Your task to perform on an android device: choose inbox layout in the gmail app Image 0: 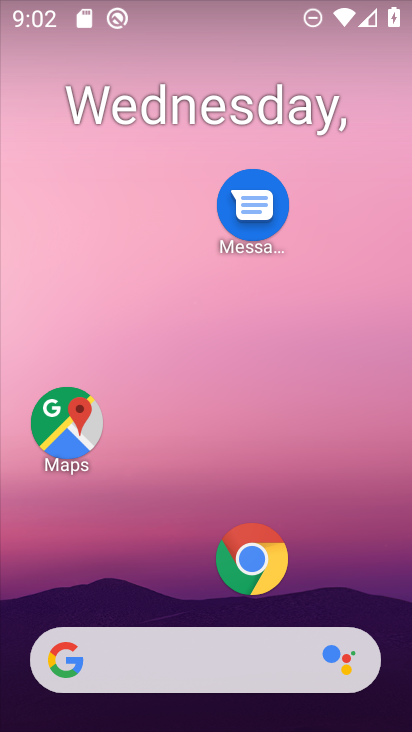
Step 0: drag from (167, 606) to (172, 154)
Your task to perform on an android device: choose inbox layout in the gmail app Image 1: 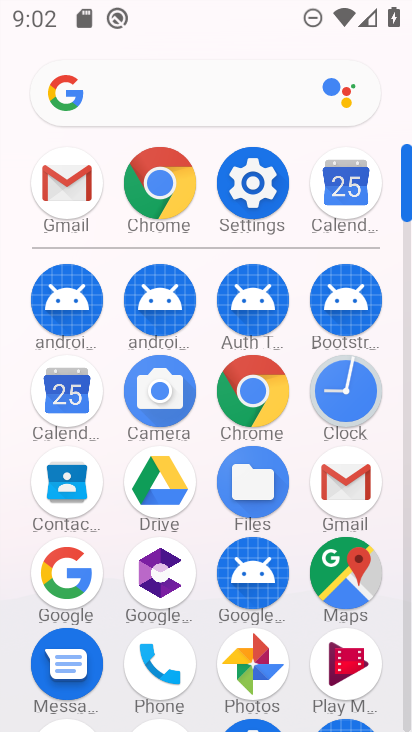
Step 1: click (346, 496)
Your task to perform on an android device: choose inbox layout in the gmail app Image 2: 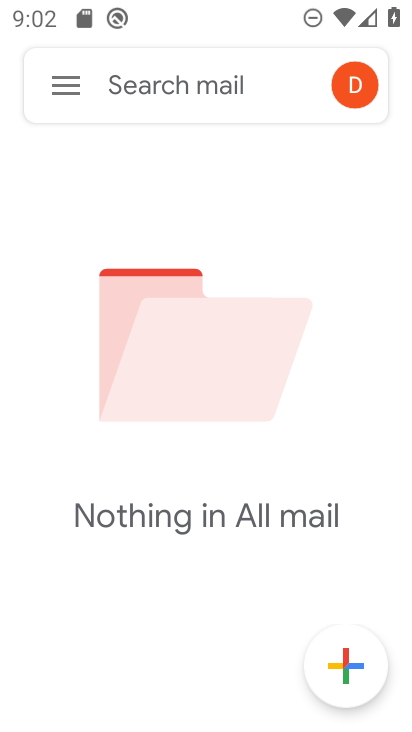
Step 2: click (65, 99)
Your task to perform on an android device: choose inbox layout in the gmail app Image 3: 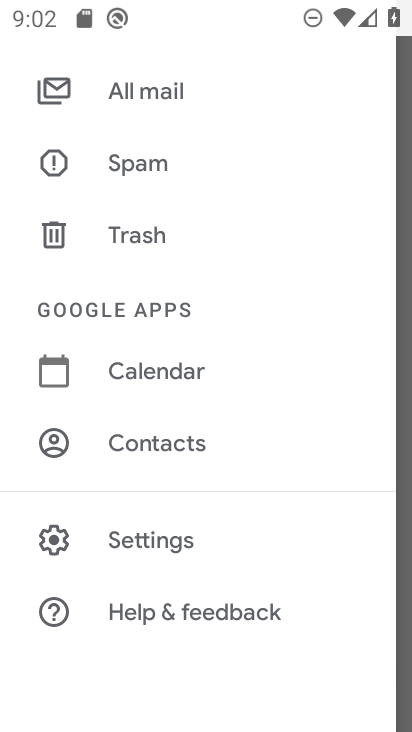
Step 3: click (205, 528)
Your task to perform on an android device: choose inbox layout in the gmail app Image 4: 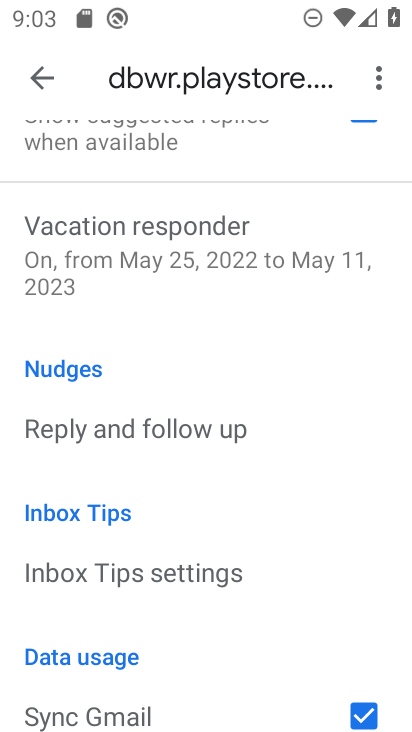
Step 4: task complete